Your task to perform on an android device: turn pop-ups off in chrome Image 0: 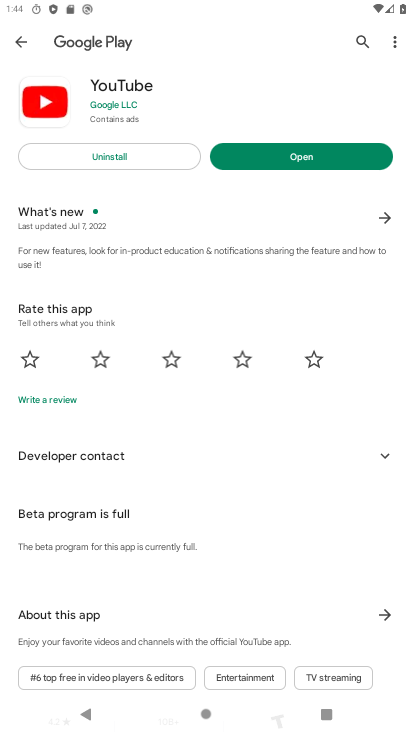
Step 0: press home button
Your task to perform on an android device: turn pop-ups off in chrome Image 1: 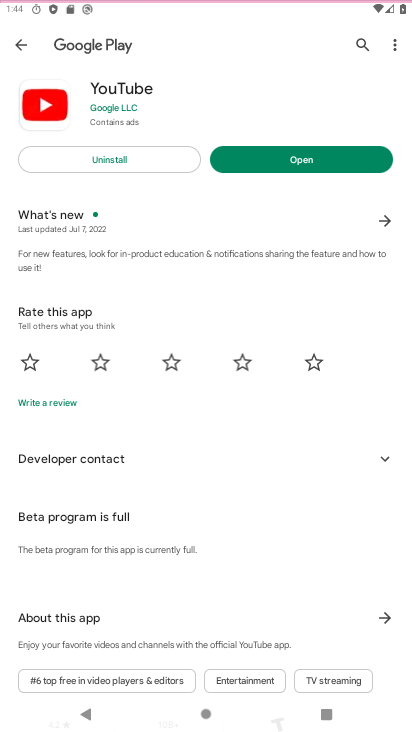
Step 1: drag from (102, 662) to (250, 207)
Your task to perform on an android device: turn pop-ups off in chrome Image 2: 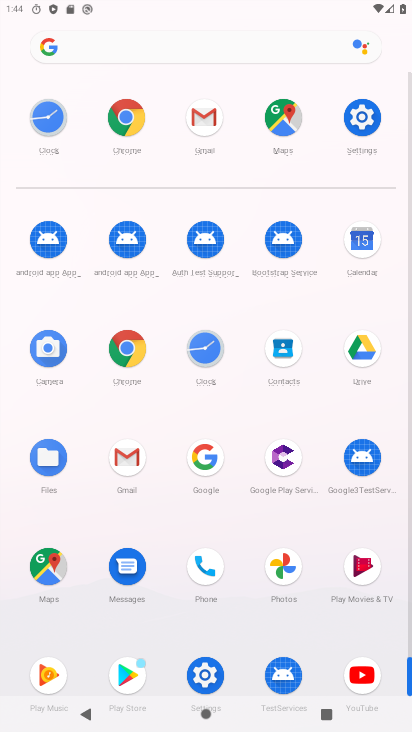
Step 2: click (124, 346)
Your task to perform on an android device: turn pop-ups off in chrome Image 3: 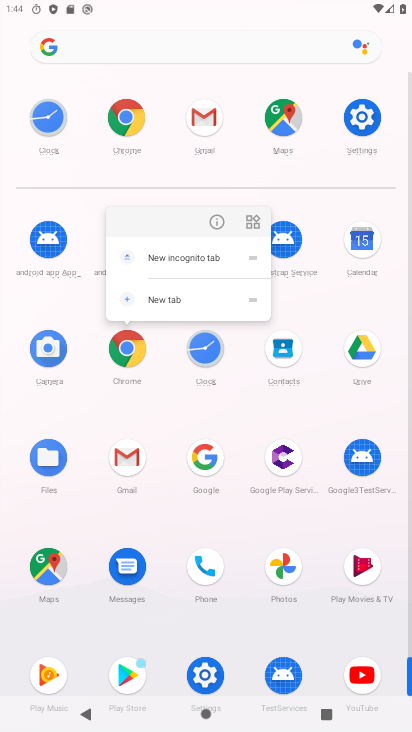
Step 3: click (208, 207)
Your task to perform on an android device: turn pop-ups off in chrome Image 4: 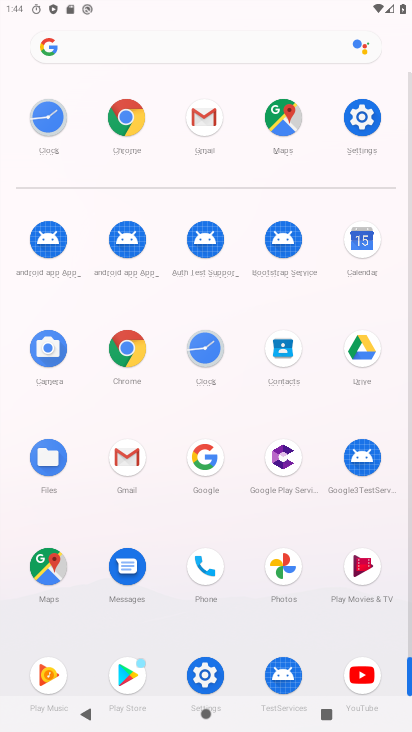
Step 4: click (137, 344)
Your task to perform on an android device: turn pop-ups off in chrome Image 5: 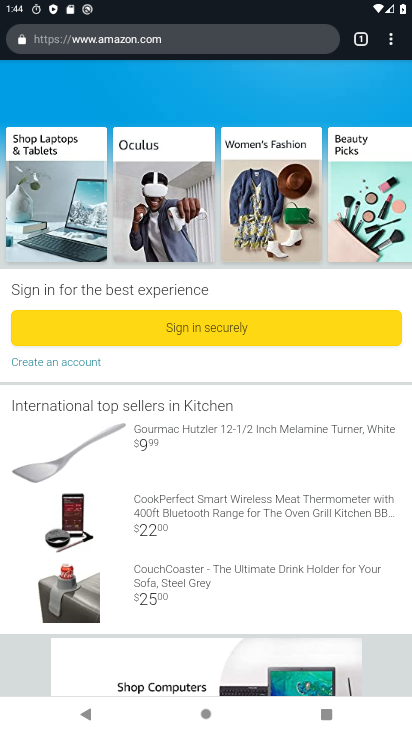
Step 5: drag from (271, 149) to (245, 640)
Your task to perform on an android device: turn pop-ups off in chrome Image 6: 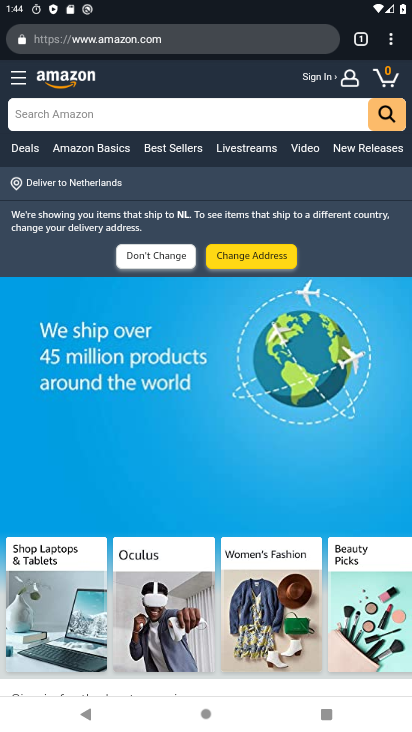
Step 6: click (392, 37)
Your task to perform on an android device: turn pop-ups off in chrome Image 7: 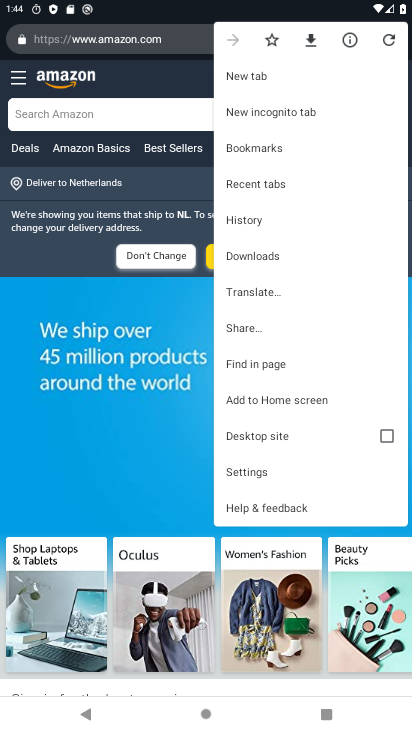
Step 7: click (239, 468)
Your task to perform on an android device: turn pop-ups off in chrome Image 8: 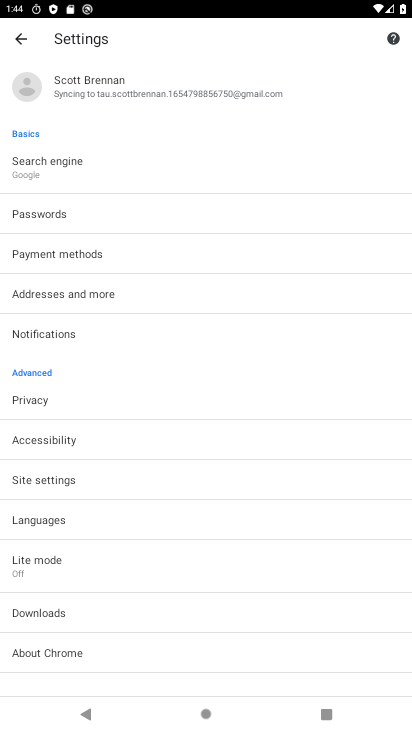
Step 8: drag from (249, 433) to (291, 79)
Your task to perform on an android device: turn pop-ups off in chrome Image 9: 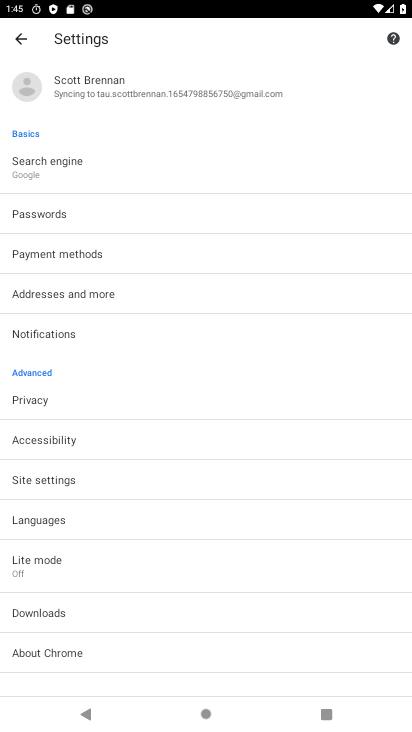
Step 9: click (93, 481)
Your task to perform on an android device: turn pop-ups off in chrome Image 10: 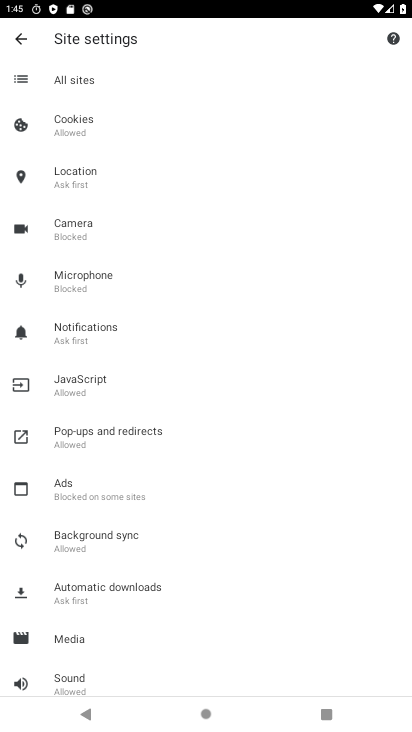
Step 10: click (114, 429)
Your task to perform on an android device: turn pop-ups off in chrome Image 11: 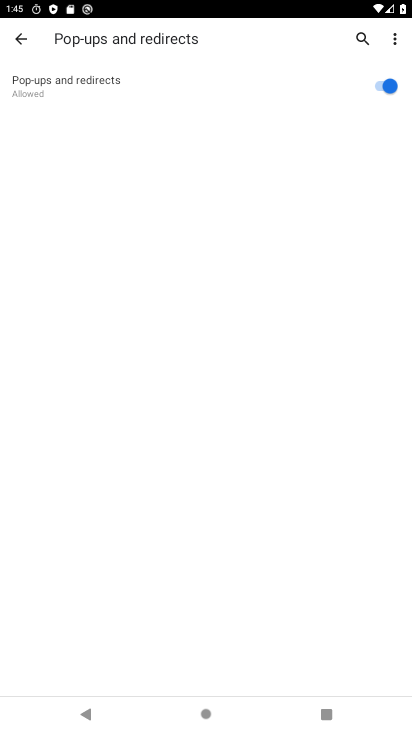
Step 11: click (392, 80)
Your task to perform on an android device: turn pop-ups off in chrome Image 12: 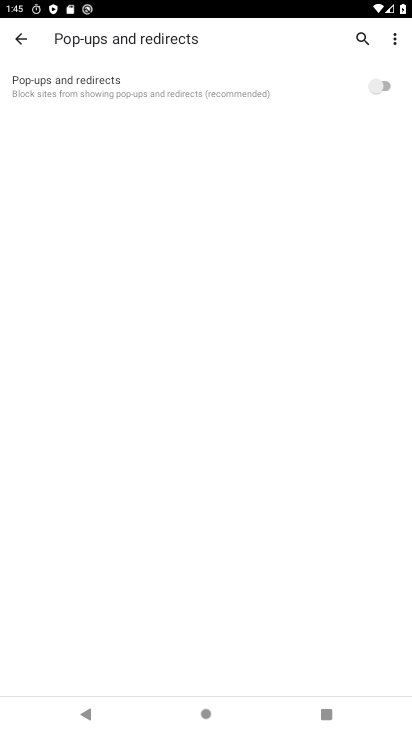
Step 12: task complete